Your task to perform on an android device: set an alarm Image 0: 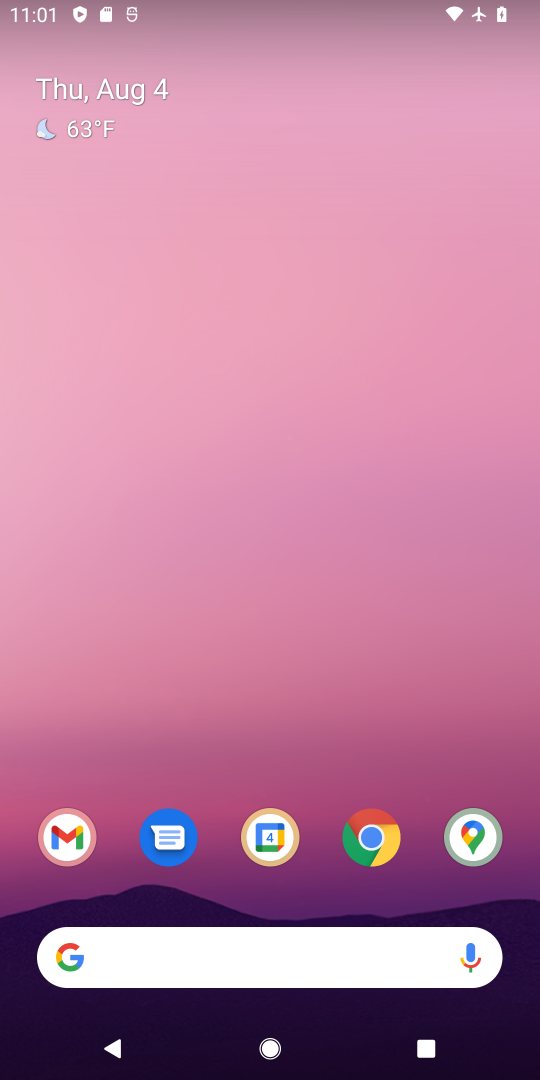
Step 0: drag from (305, 868) to (327, 55)
Your task to perform on an android device: set an alarm Image 1: 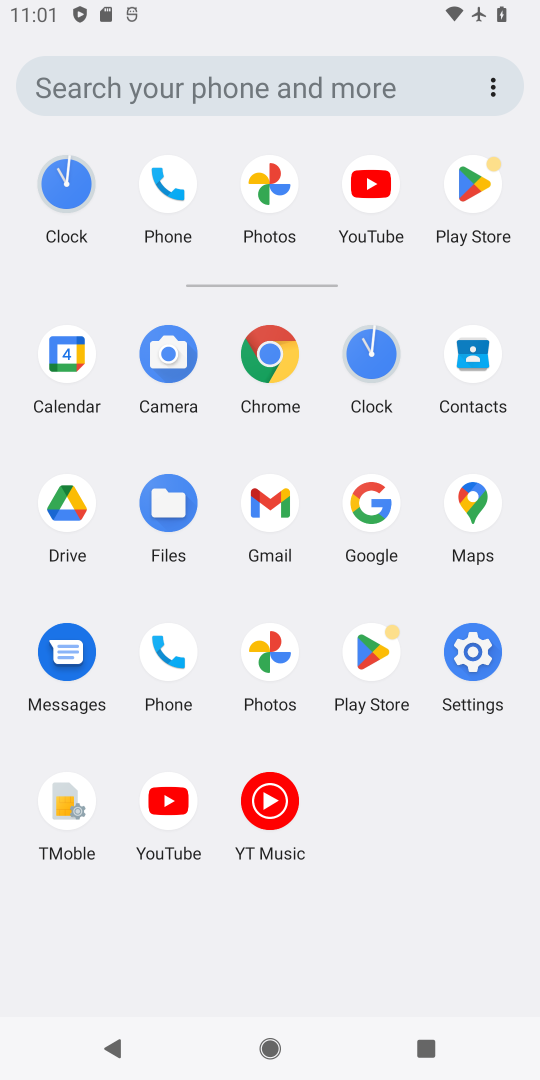
Step 1: click (365, 347)
Your task to perform on an android device: set an alarm Image 2: 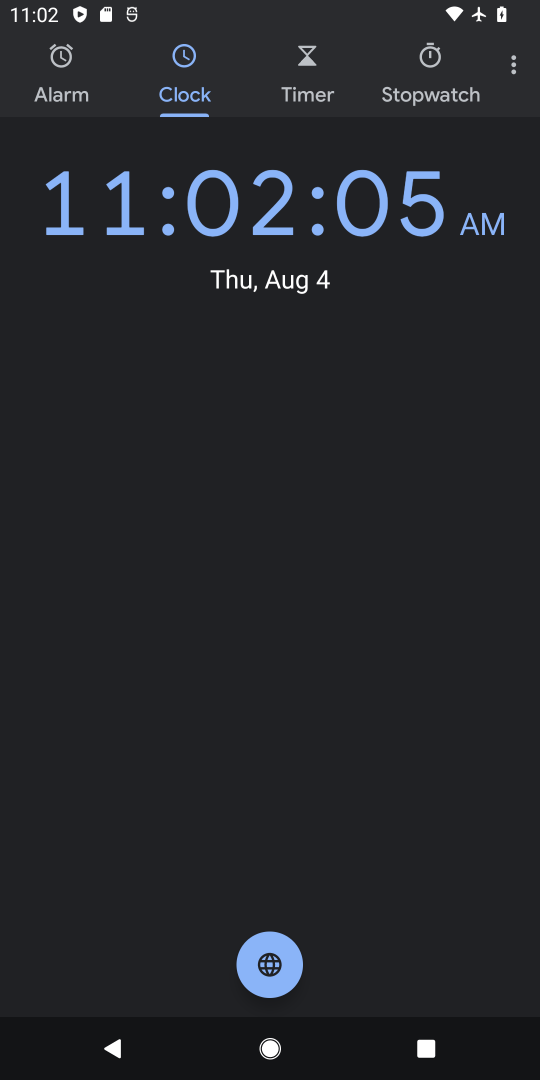
Step 2: click (70, 68)
Your task to perform on an android device: set an alarm Image 3: 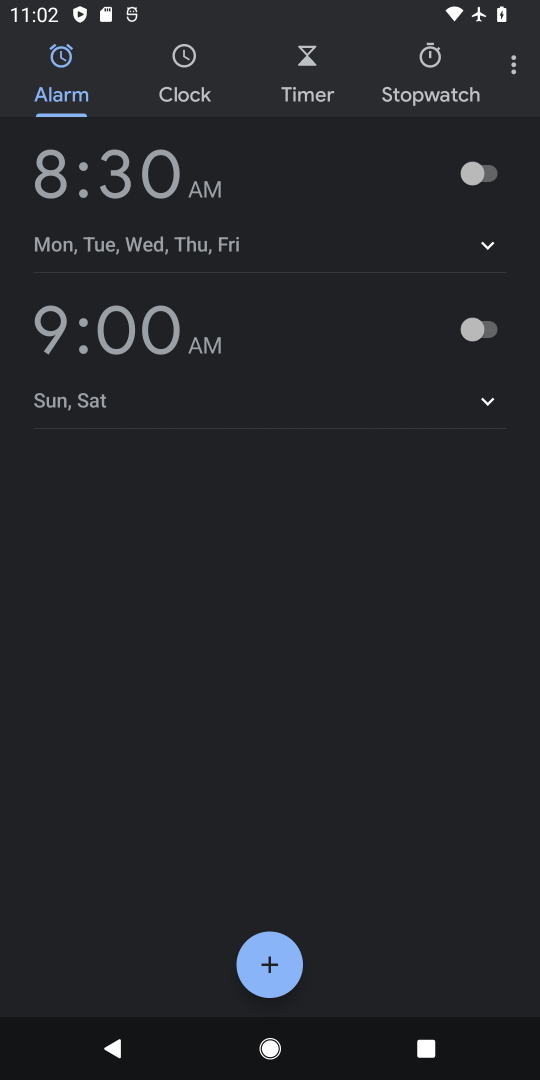
Step 3: click (501, 173)
Your task to perform on an android device: set an alarm Image 4: 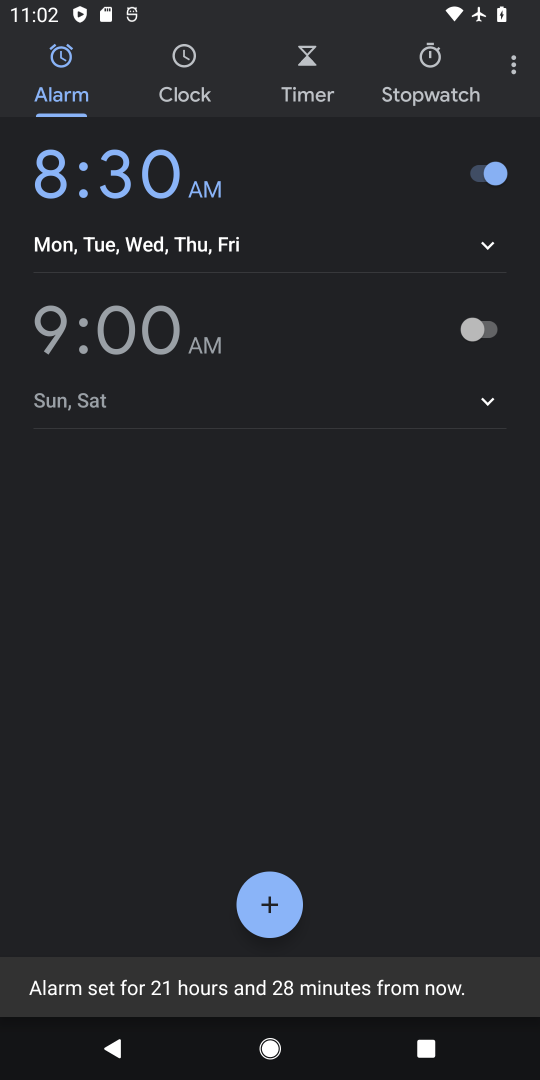
Step 4: task complete